Your task to perform on an android device: Search for Mexican restaurants on Maps Image 0: 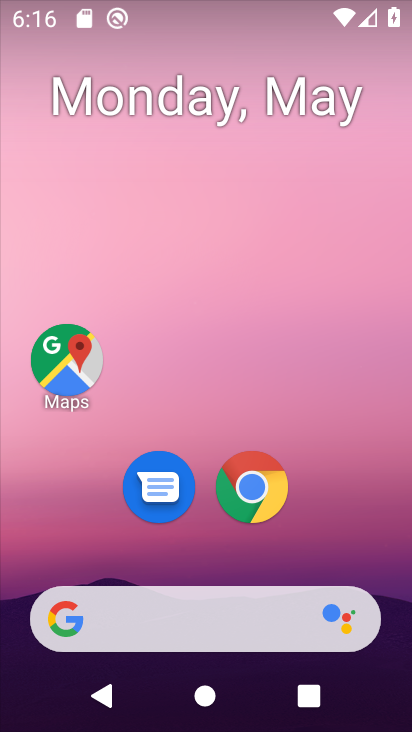
Step 0: click (64, 365)
Your task to perform on an android device: Search for Mexican restaurants on Maps Image 1: 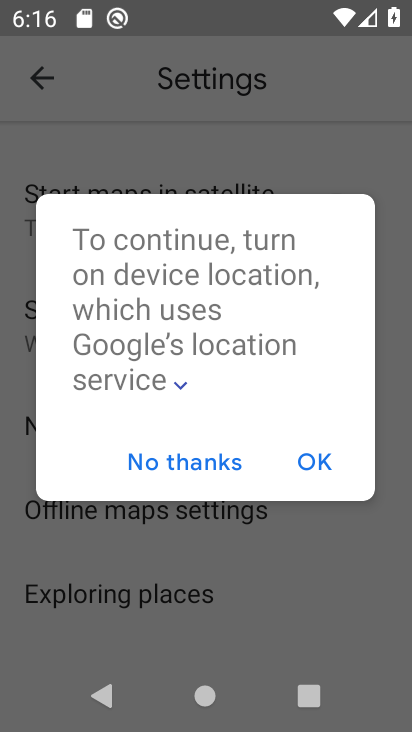
Step 1: click (215, 470)
Your task to perform on an android device: Search for Mexican restaurants on Maps Image 2: 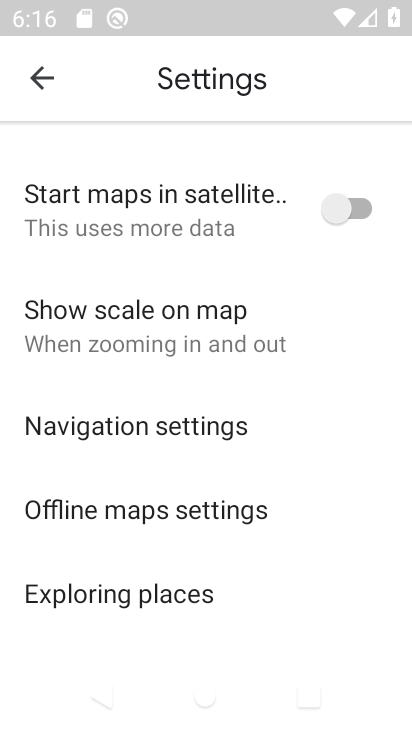
Step 2: click (47, 79)
Your task to perform on an android device: Search for Mexican restaurants on Maps Image 3: 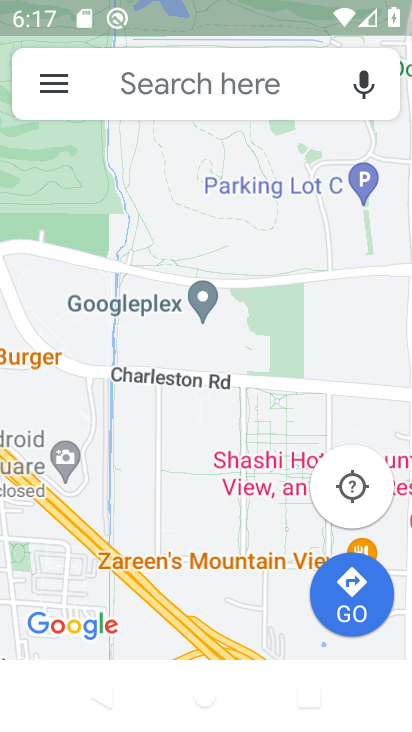
Step 3: click (137, 78)
Your task to perform on an android device: Search for Mexican restaurants on Maps Image 4: 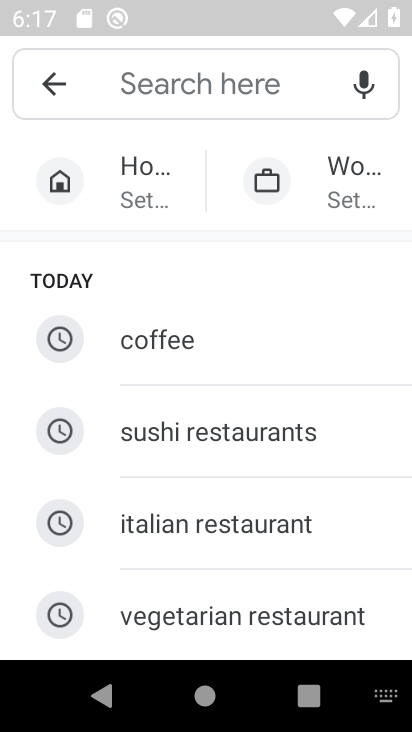
Step 4: drag from (190, 573) to (210, 74)
Your task to perform on an android device: Search for Mexican restaurants on Maps Image 5: 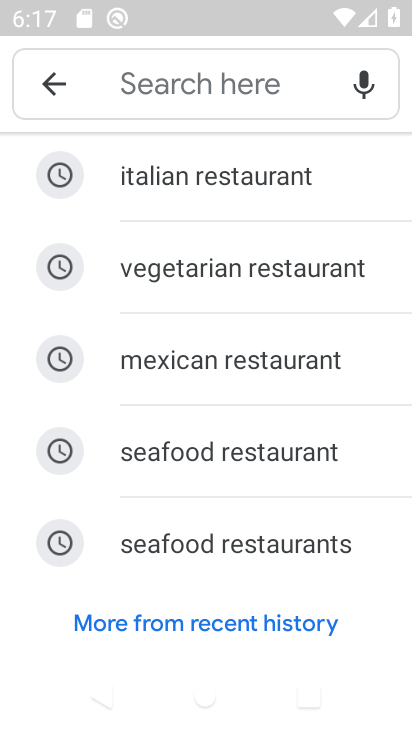
Step 5: click (183, 363)
Your task to perform on an android device: Search for Mexican restaurants on Maps Image 6: 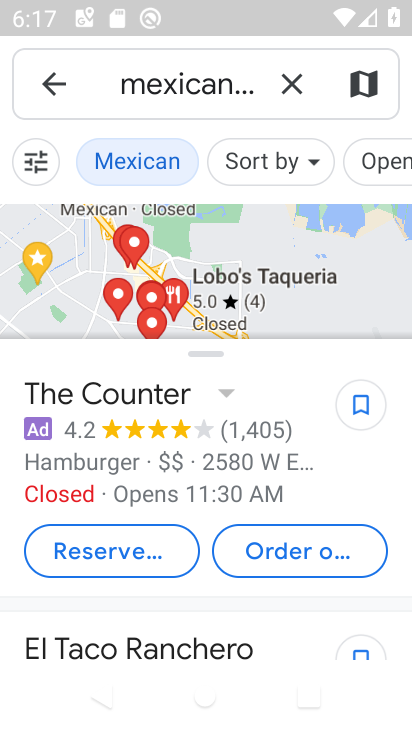
Step 6: task complete